Your task to perform on an android device: Is it going to rain this weekend? Image 0: 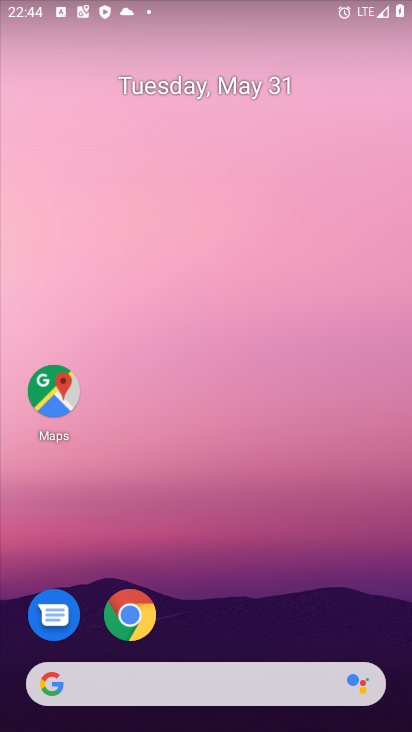
Step 0: drag from (9, 258) to (360, 249)
Your task to perform on an android device: Is it going to rain this weekend? Image 1: 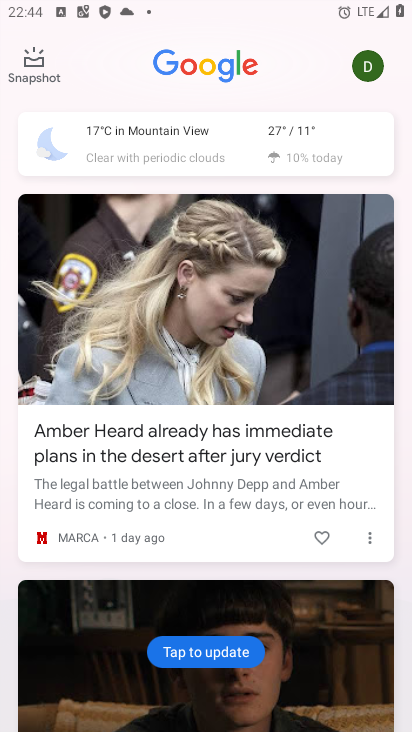
Step 1: click (304, 135)
Your task to perform on an android device: Is it going to rain this weekend? Image 2: 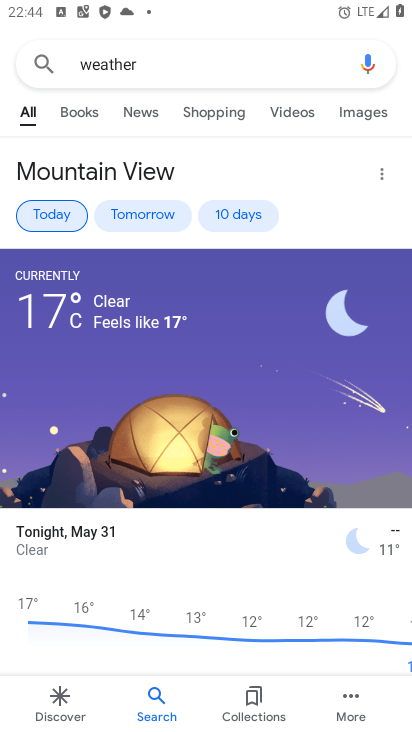
Step 2: click (236, 221)
Your task to perform on an android device: Is it going to rain this weekend? Image 3: 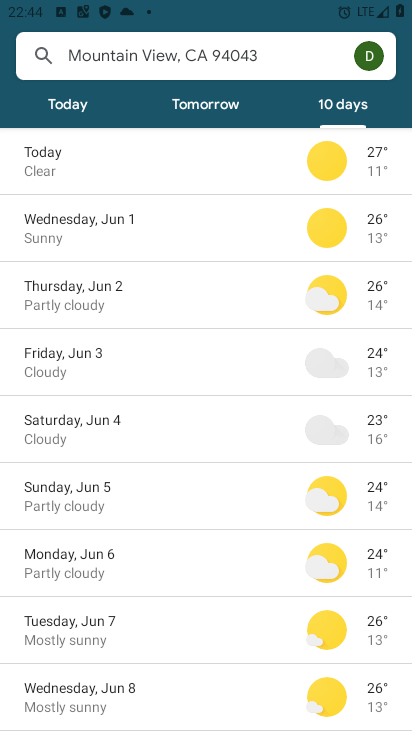
Step 3: task complete